Your task to perform on an android device: turn on location history Image 0: 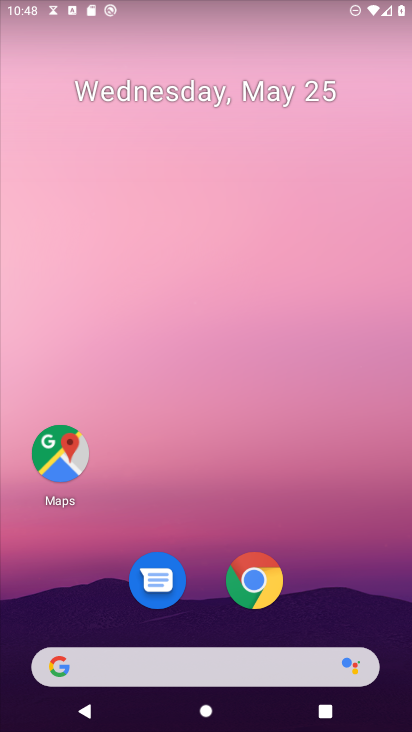
Step 0: press home button
Your task to perform on an android device: turn on location history Image 1: 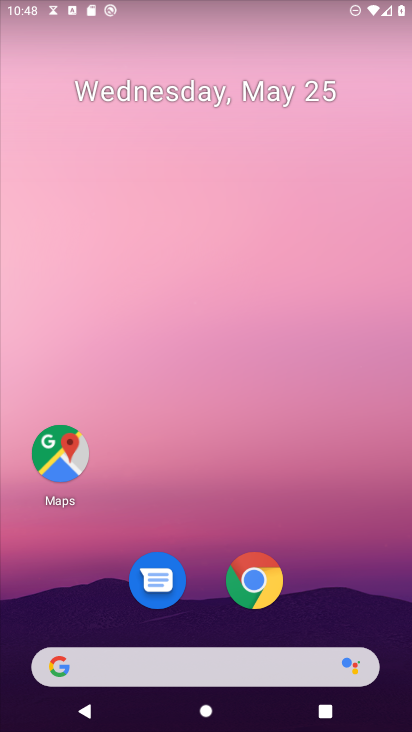
Step 1: drag from (37, 612) to (410, 58)
Your task to perform on an android device: turn on location history Image 2: 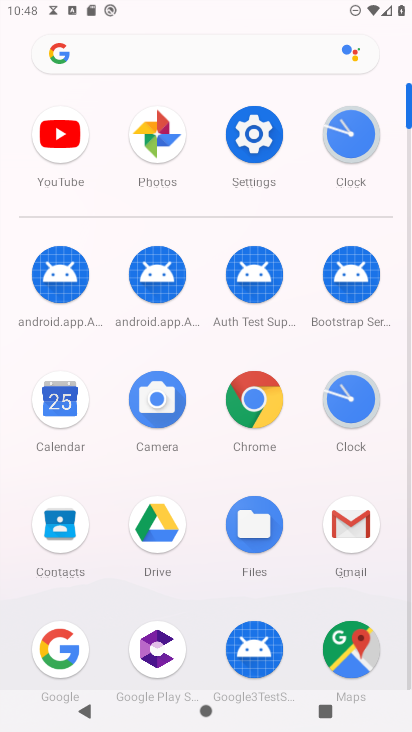
Step 2: click (246, 232)
Your task to perform on an android device: turn on location history Image 3: 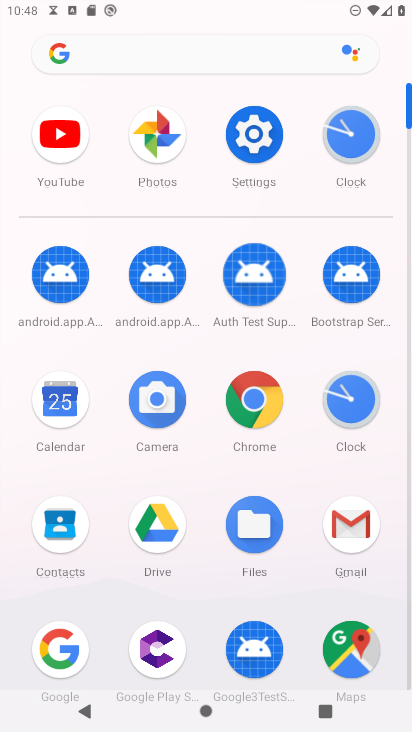
Step 3: click (263, 151)
Your task to perform on an android device: turn on location history Image 4: 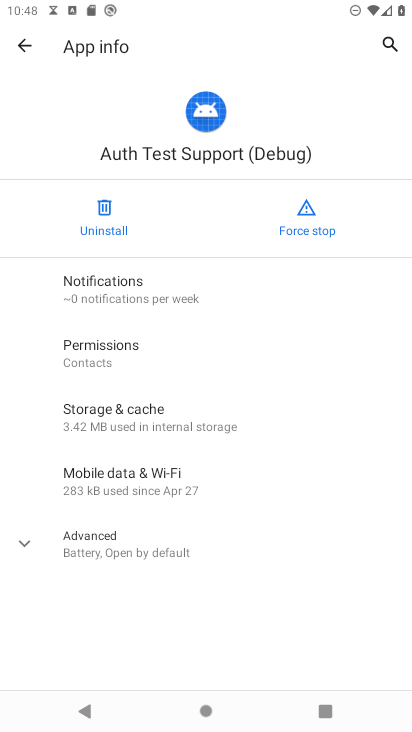
Step 4: press back button
Your task to perform on an android device: turn on location history Image 5: 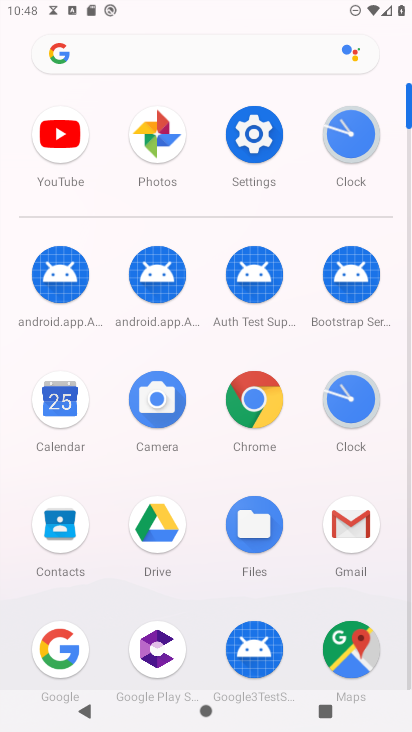
Step 5: click (265, 145)
Your task to perform on an android device: turn on location history Image 6: 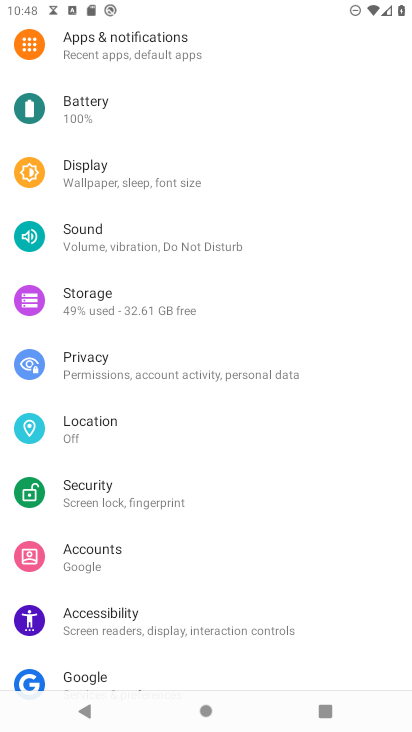
Step 6: click (112, 439)
Your task to perform on an android device: turn on location history Image 7: 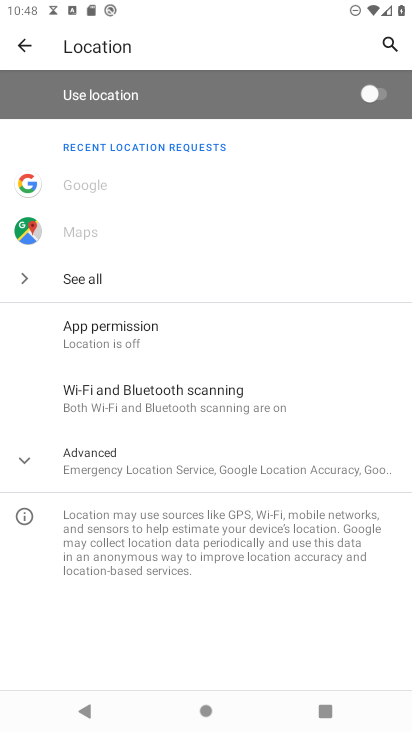
Step 7: click (170, 459)
Your task to perform on an android device: turn on location history Image 8: 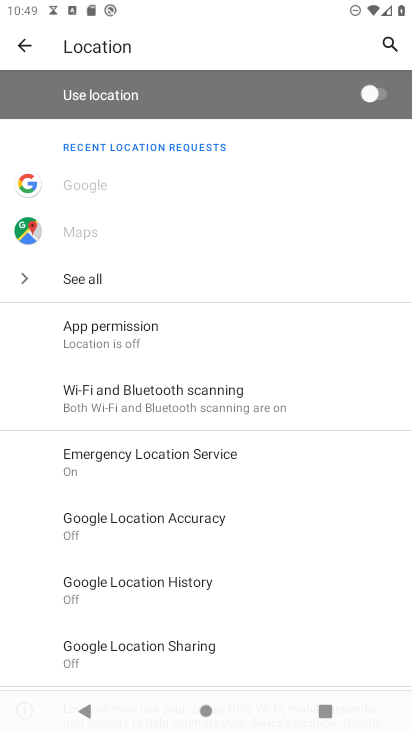
Step 8: click (114, 588)
Your task to perform on an android device: turn on location history Image 9: 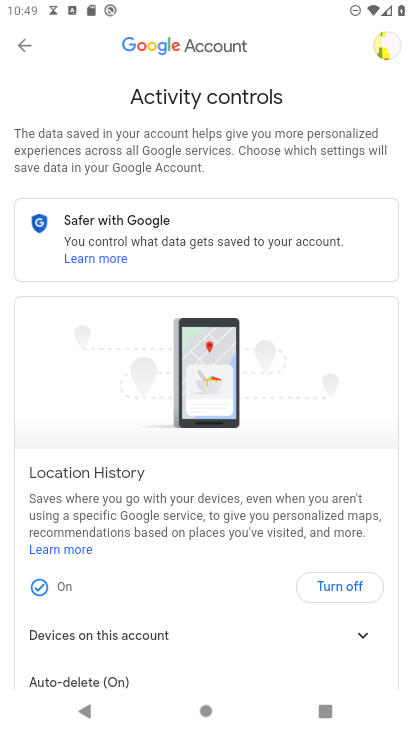
Step 9: click (350, 577)
Your task to perform on an android device: turn on location history Image 10: 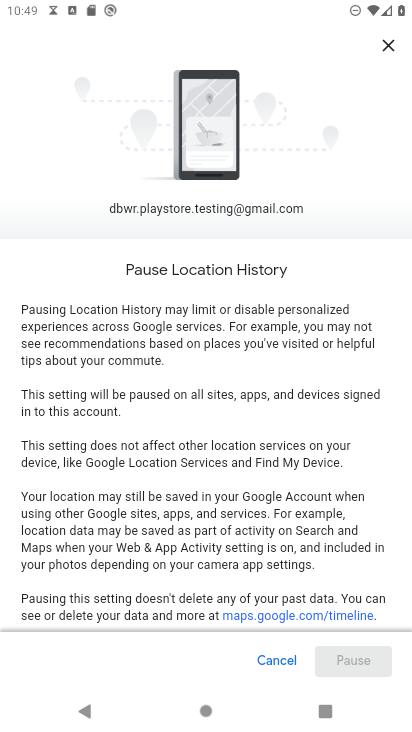
Step 10: drag from (55, 467) to (189, 288)
Your task to perform on an android device: turn on location history Image 11: 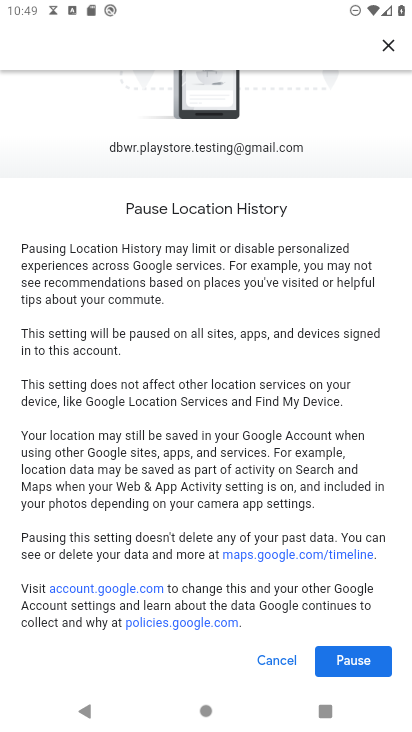
Step 11: click (360, 670)
Your task to perform on an android device: turn on location history Image 12: 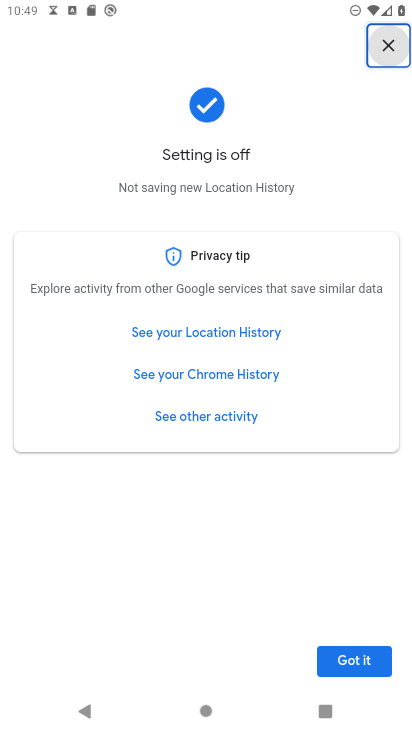
Step 12: click (353, 659)
Your task to perform on an android device: turn on location history Image 13: 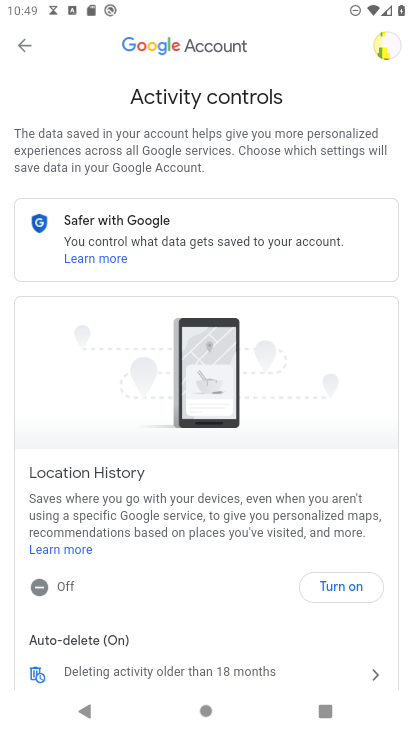
Step 13: task complete